Your task to perform on an android device: Open Chrome and go to settings Image 0: 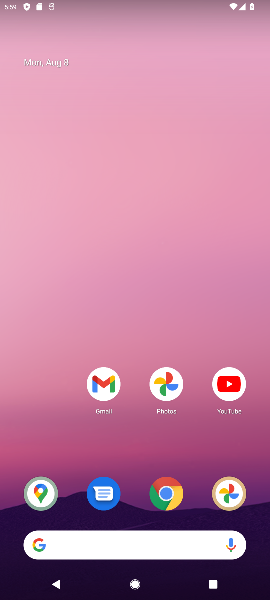
Step 0: click (158, 503)
Your task to perform on an android device: Open Chrome and go to settings Image 1: 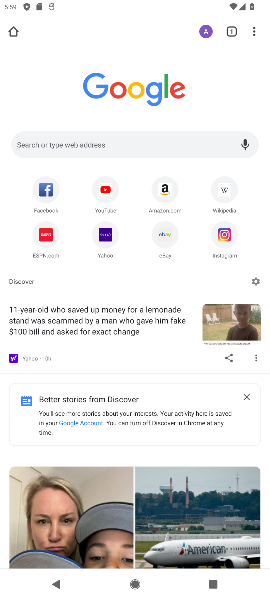
Step 1: click (251, 35)
Your task to perform on an android device: Open Chrome and go to settings Image 2: 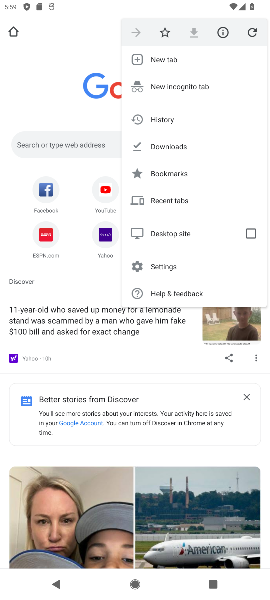
Step 2: click (160, 264)
Your task to perform on an android device: Open Chrome and go to settings Image 3: 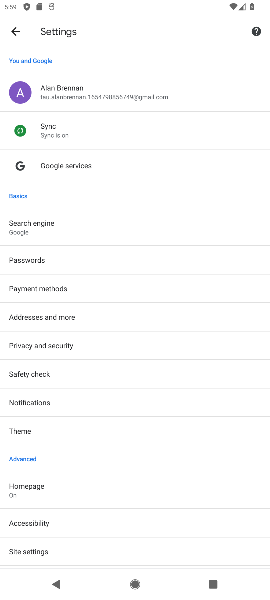
Step 3: task complete